Your task to perform on an android device: toggle improve location accuracy Image 0: 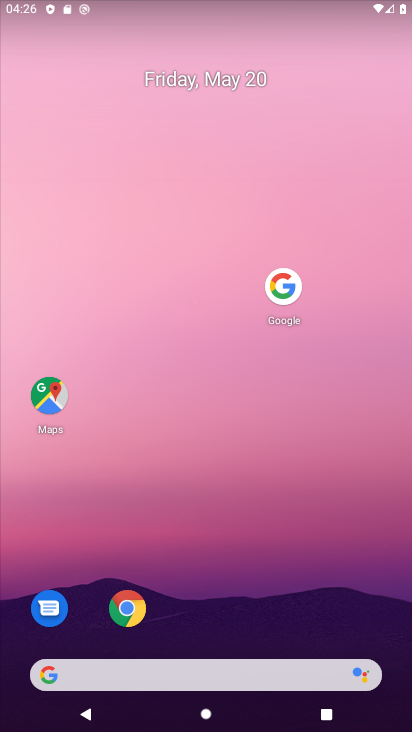
Step 0: drag from (201, 644) to (134, 27)
Your task to perform on an android device: toggle improve location accuracy Image 1: 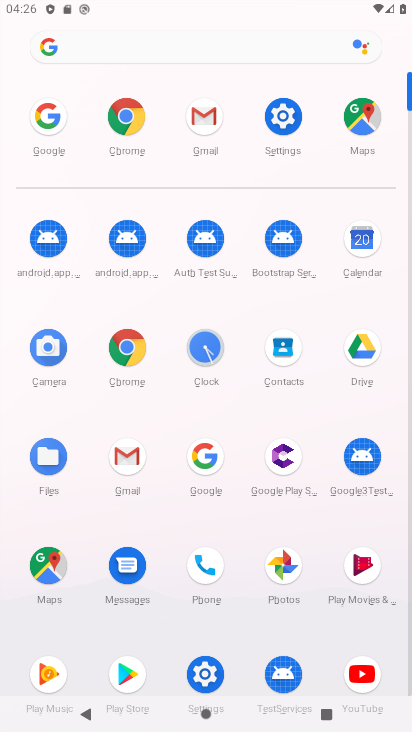
Step 1: click (284, 128)
Your task to perform on an android device: toggle improve location accuracy Image 2: 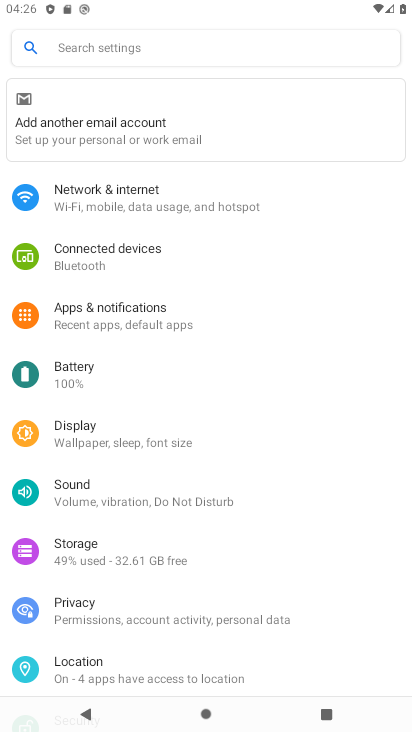
Step 2: click (87, 666)
Your task to perform on an android device: toggle improve location accuracy Image 3: 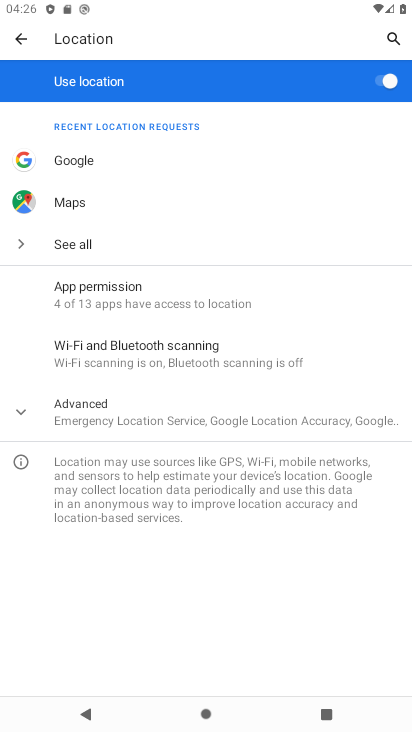
Step 3: click (70, 357)
Your task to perform on an android device: toggle improve location accuracy Image 4: 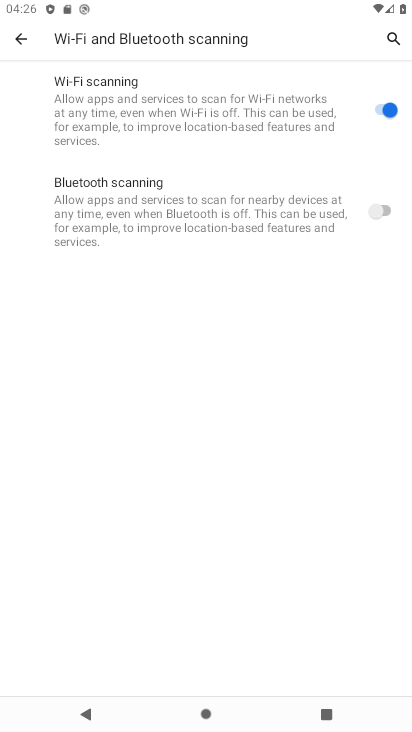
Step 4: click (20, 47)
Your task to perform on an android device: toggle improve location accuracy Image 5: 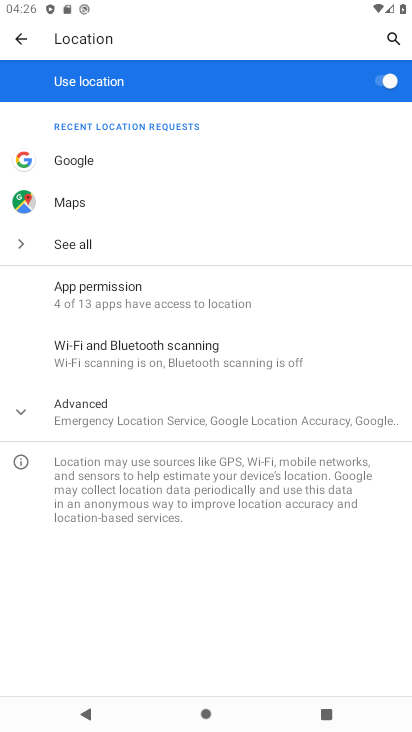
Step 5: click (112, 432)
Your task to perform on an android device: toggle improve location accuracy Image 6: 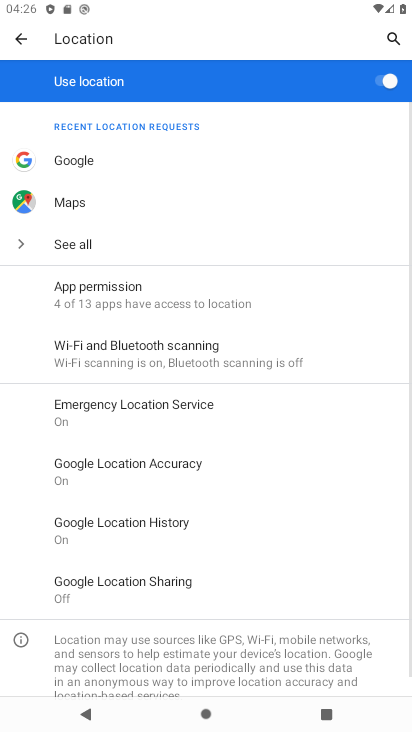
Step 6: click (149, 451)
Your task to perform on an android device: toggle improve location accuracy Image 7: 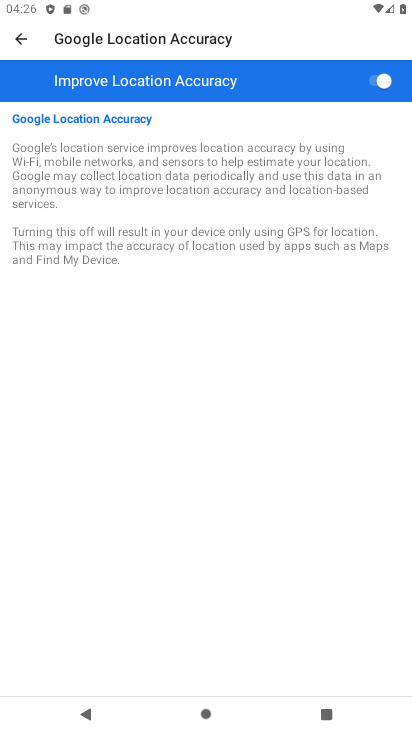
Step 7: click (376, 81)
Your task to perform on an android device: toggle improve location accuracy Image 8: 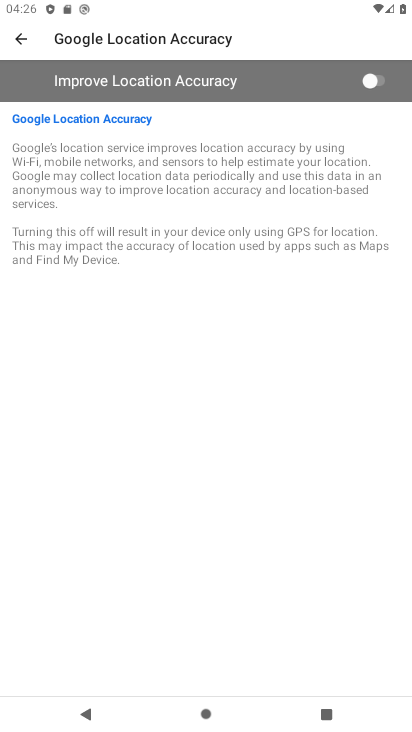
Step 8: task complete